Your task to perform on an android device: What's on my calendar tomorrow? Image 0: 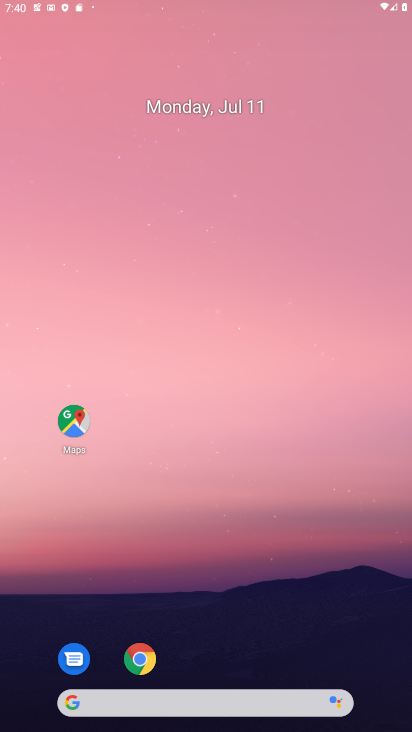
Step 0: drag from (253, 709) to (139, 94)
Your task to perform on an android device: What's on my calendar tomorrow? Image 1: 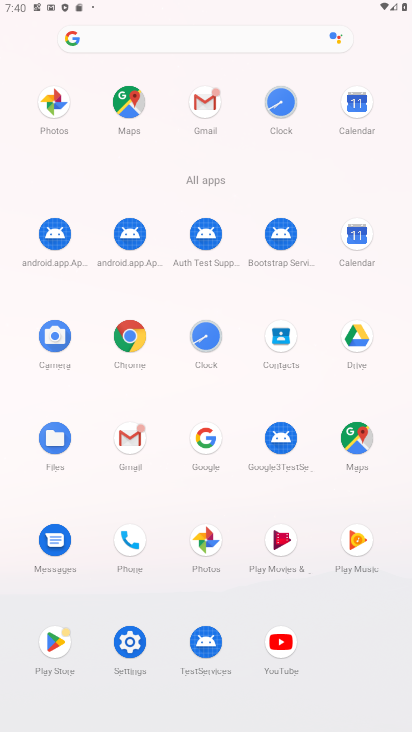
Step 1: click (348, 238)
Your task to perform on an android device: What's on my calendar tomorrow? Image 2: 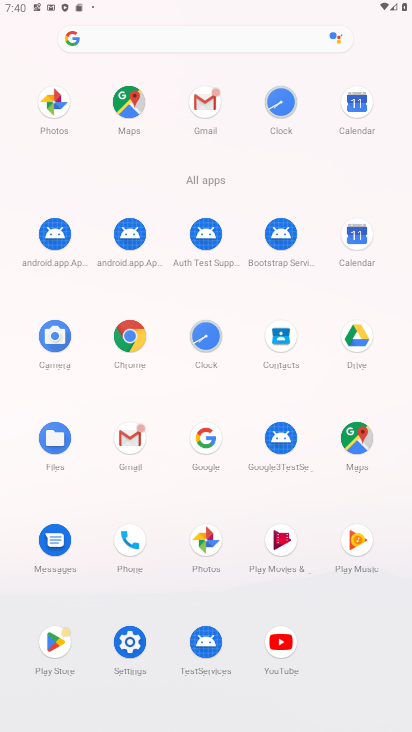
Step 2: click (347, 238)
Your task to perform on an android device: What's on my calendar tomorrow? Image 3: 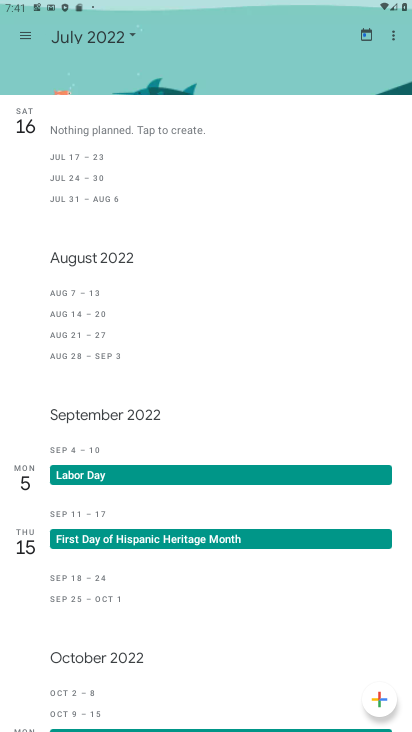
Step 3: click (130, 35)
Your task to perform on an android device: What's on my calendar tomorrow? Image 4: 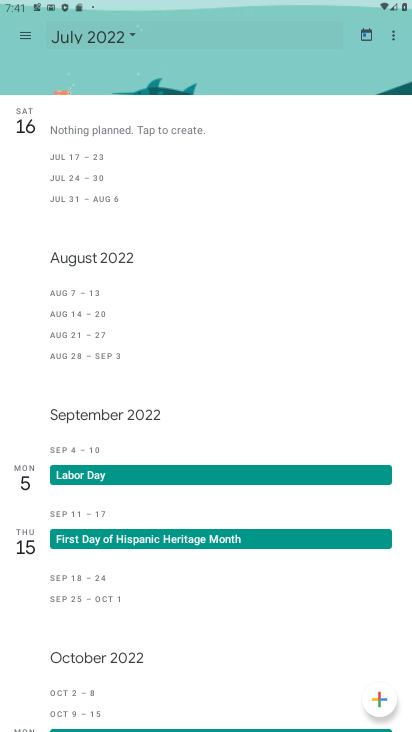
Step 4: click (131, 36)
Your task to perform on an android device: What's on my calendar tomorrow? Image 5: 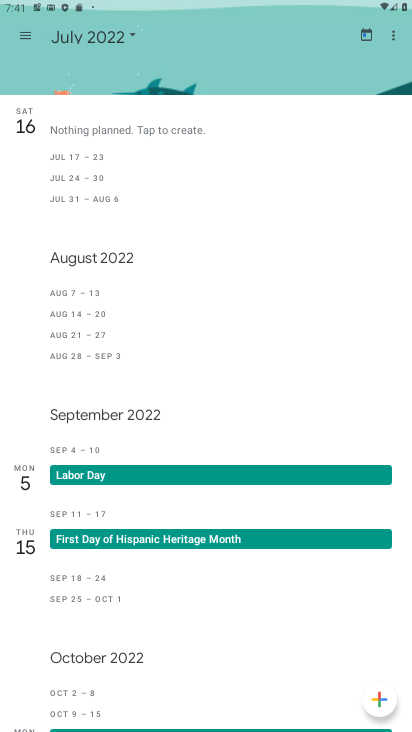
Step 5: click (130, 34)
Your task to perform on an android device: What's on my calendar tomorrow? Image 6: 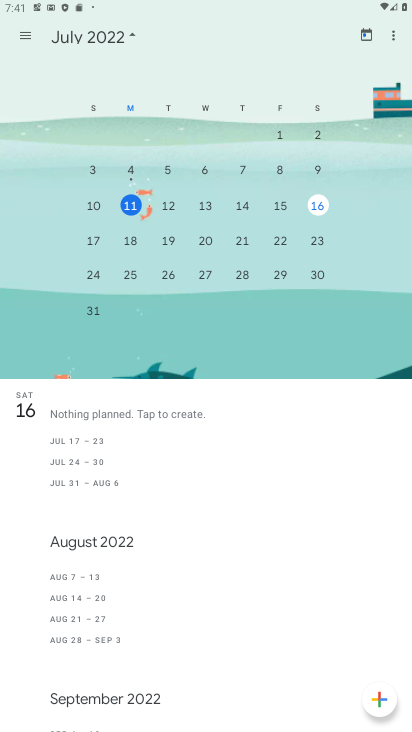
Step 6: click (205, 198)
Your task to perform on an android device: What's on my calendar tomorrow? Image 7: 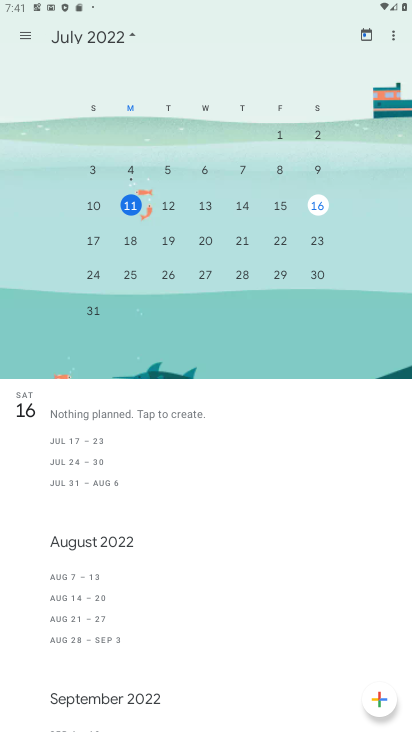
Step 7: click (204, 198)
Your task to perform on an android device: What's on my calendar tomorrow? Image 8: 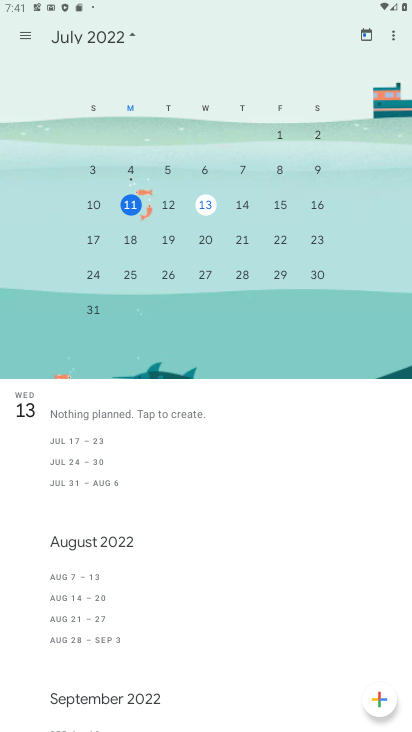
Step 8: task complete